Your task to perform on an android device: Do I have any events today? Image 0: 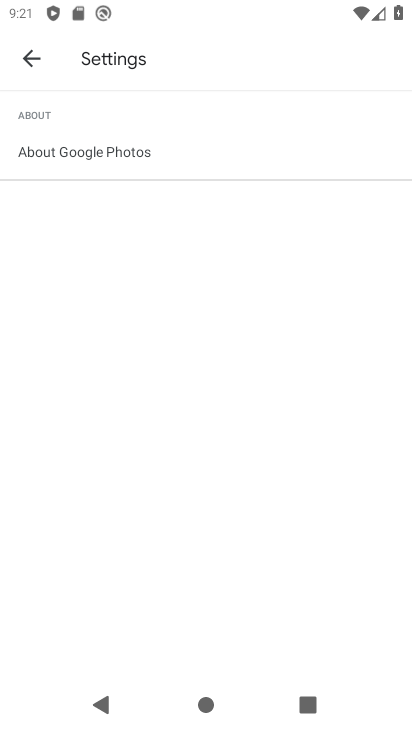
Step 0: press home button
Your task to perform on an android device: Do I have any events today? Image 1: 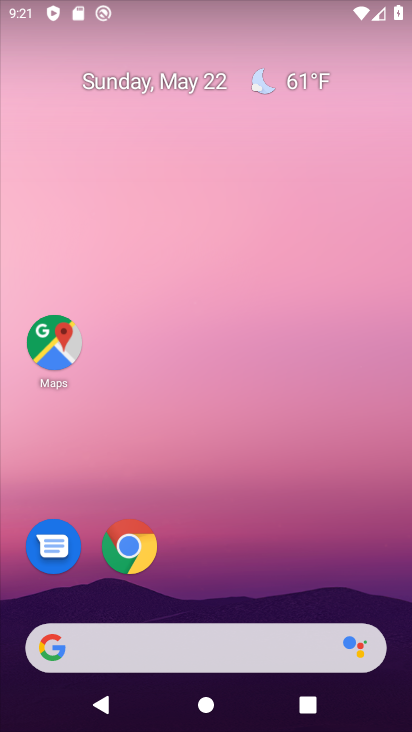
Step 1: drag from (208, 652) to (201, 282)
Your task to perform on an android device: Do I have any events today? Image 2: 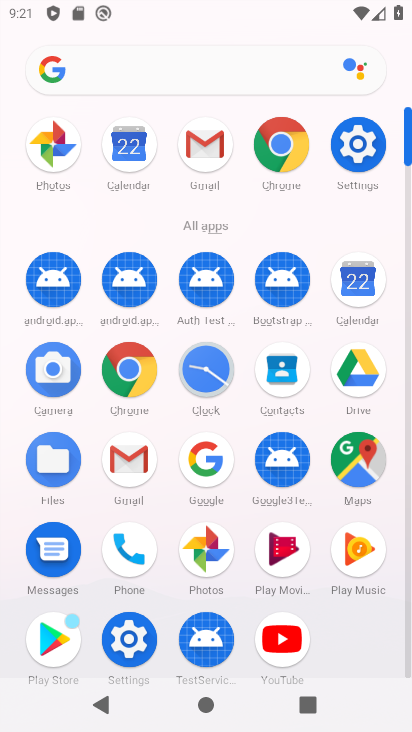
Step 2: click (371, 284)
Your task to perform on an android device: Do I have any events today? Image 3: 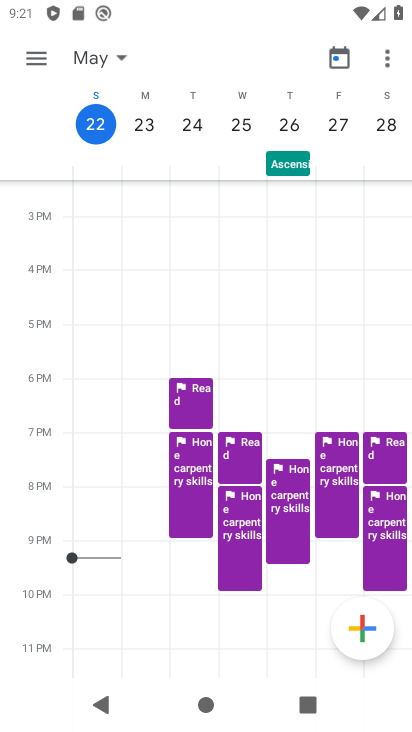
Step 3: click (25, 52)
Your task to perform on an android device: Do I have any events today? Image 4: 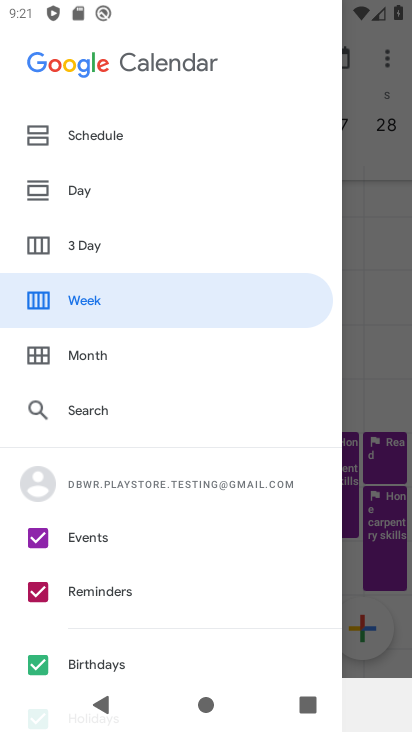
Step 4: click (102, 131)
Your task to perform on an android device: Do I have any events today? Image 5: 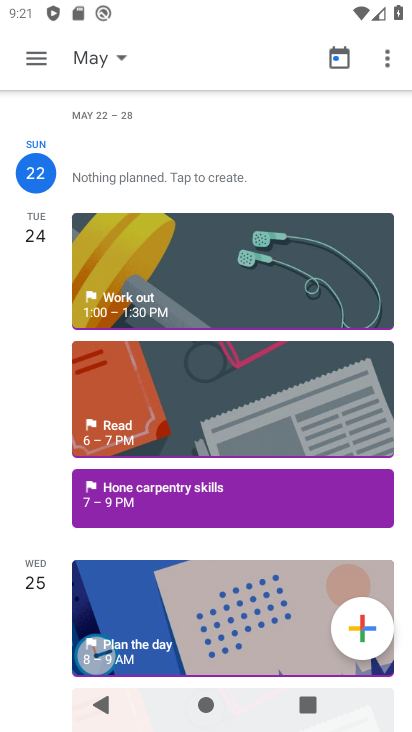
Step 5: task complete